Your task to perform on an android device: turn on javascript in the chrome app Image 0: 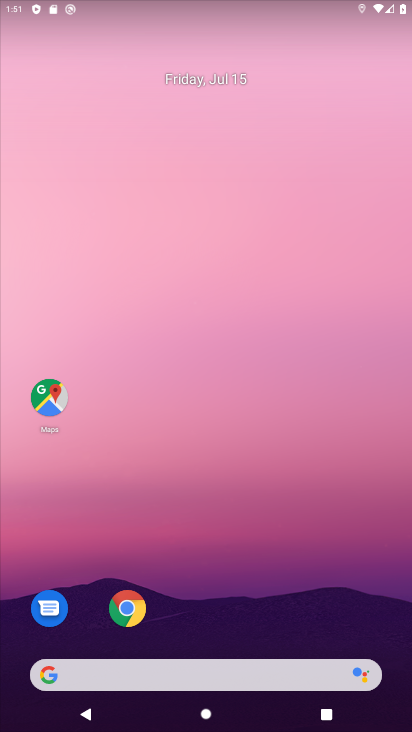
Step 0: click (142, 599)
Your task to perform on an android device: turn on javascript in the chrome app Image 1: 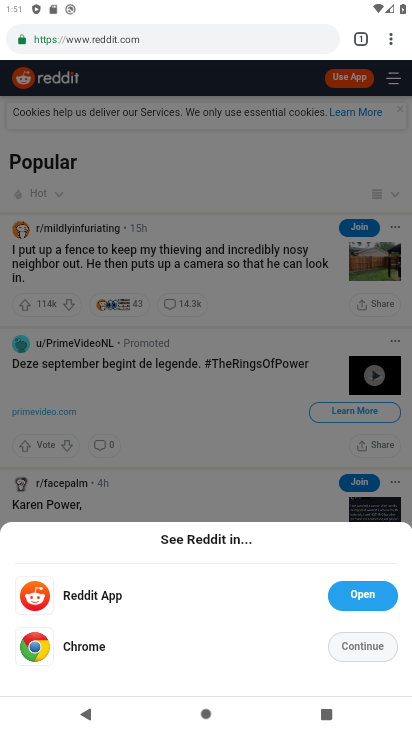
Step 1: drag from (390, 44) to (265, 470)
Your task to perform on an android device: turn on javascript in the chrome app Image 2: 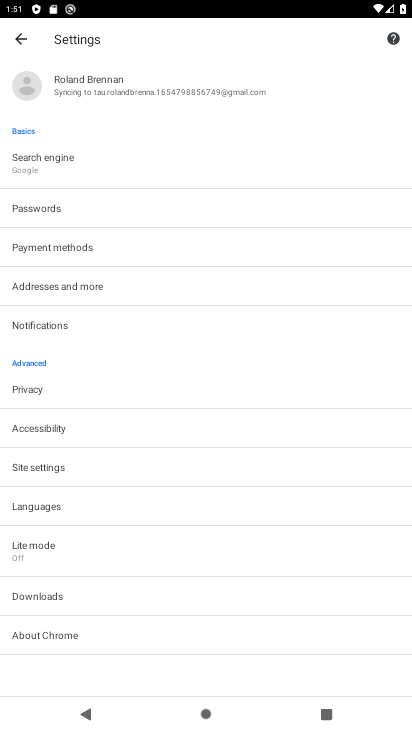
Step 2: click (81, 470)
Your task to perform on an android device: turn on javascript in the chrome app Image 3: 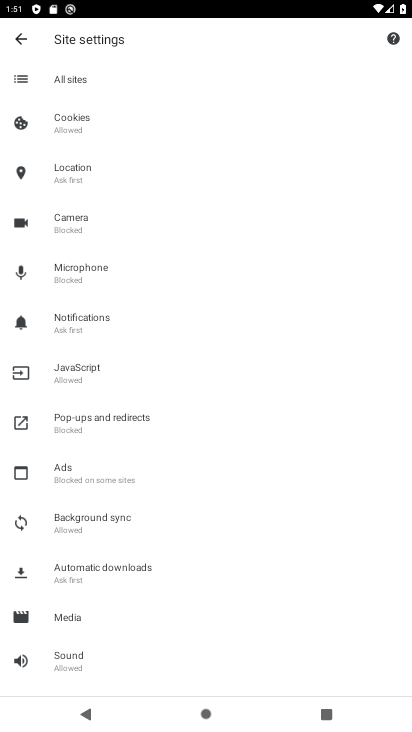
Step 3: click (100, 367)
Your task to perform on an android device: turn on javascript in the chrome app Image 4: 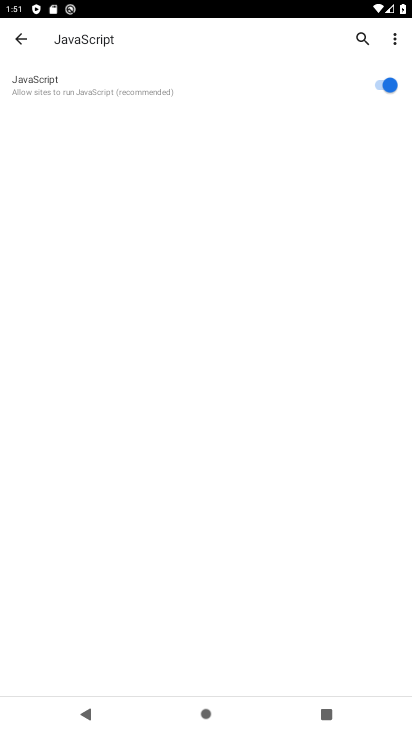
Step 4: task complete